Your task to perform on an android device: Go to Reddit.com Image 0: 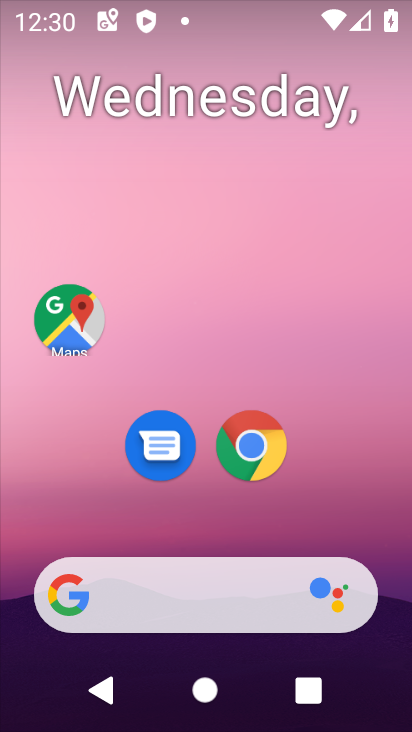
Step 0: click (257, 438)
Your task to perform on an android device: Go to Reddit.com Image 1: 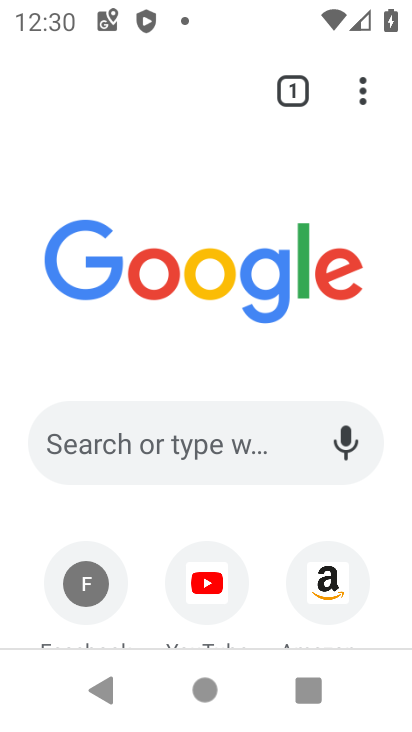
Step 1: drag from (237, 512) to (234, 309)
Your task to perform on an android device: Go to Reddit.com Image 2: 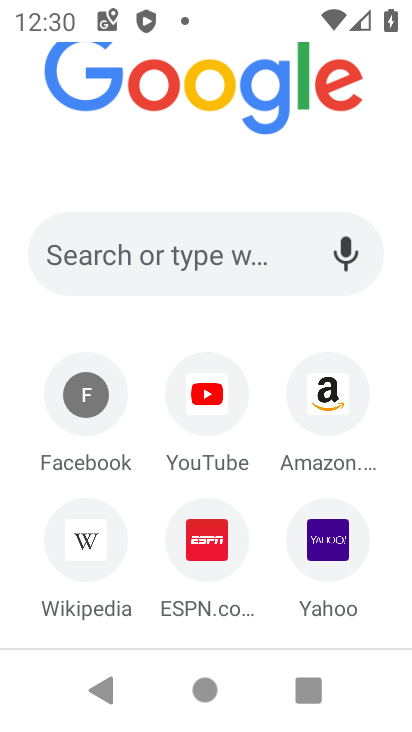
Step 2: click (192, 255)
Your task to perform on an android device: Go to Reddit.com Image 3: 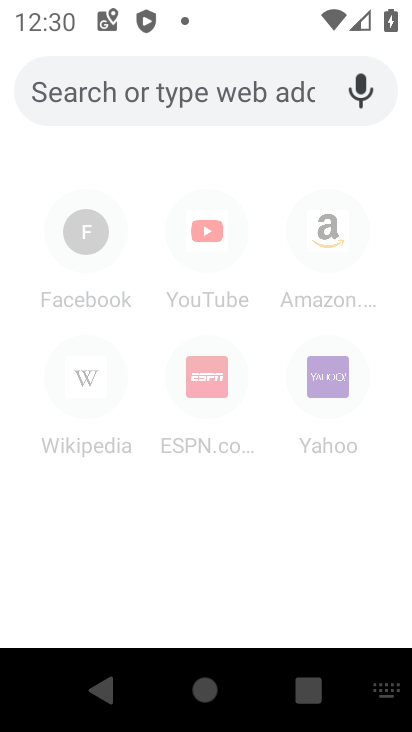
Step 3: type "reddit.com"
Your task to perform on an android device: Go to Reddit.com Image 4: 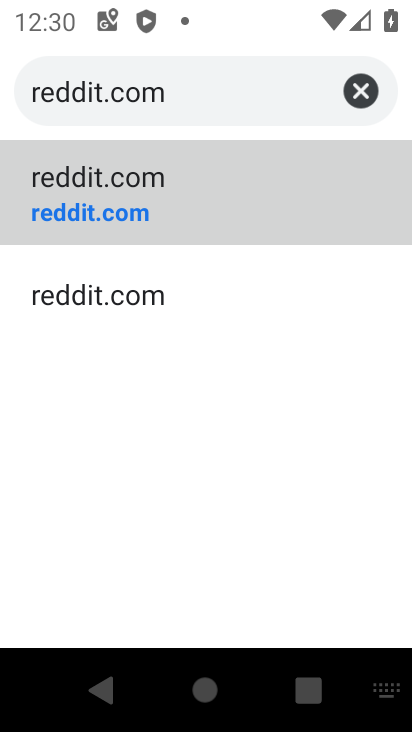
Step 4: click (77, 209)
Your task to perform on an android device: Go to Reddit.com Image 5: 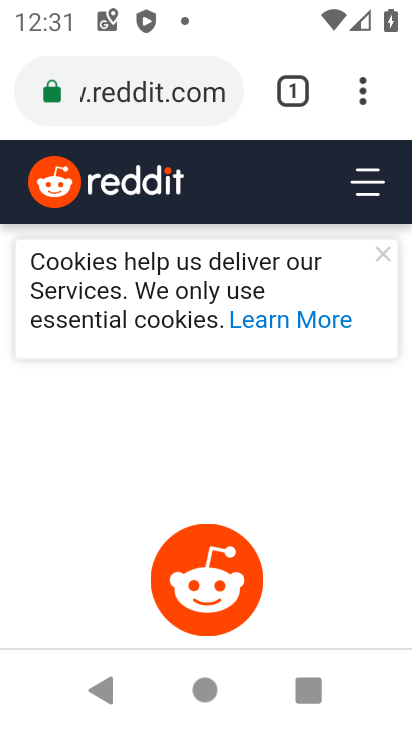
Step 5: task complete